Your task to perform on an android device: open app "Pinterest" (install if not already installed) Image 0: 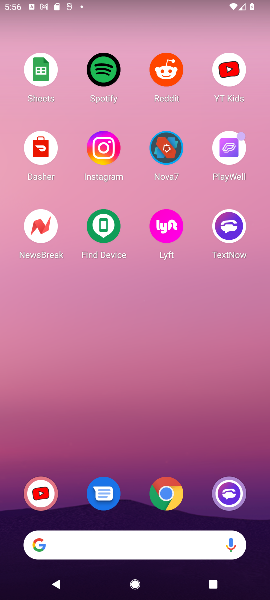
Step 0: drag from (158, 591) to (154, 88)
Your task to perform on an android device: open app "Pinterest" (install if not already installed) Image 1: 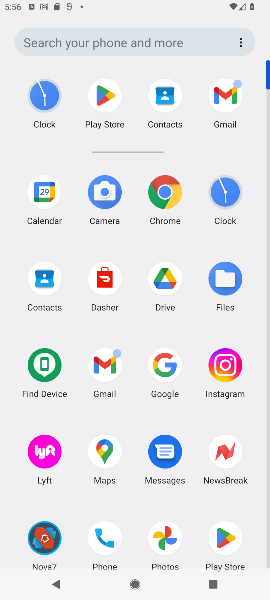
Step 1: drag from (197, 457) to (193, 196)
Your task to perform on an android device: open app "Pinterest" (install if not already installed) Image 2: 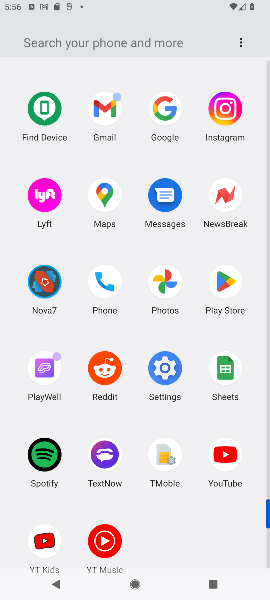
Step 2: click (41, 540)
Your task to perform on an android device: open app "Pinterest" (install if not already installed) Image 3: 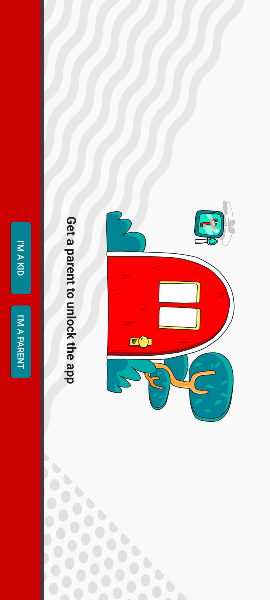
Step 3: press home button
Your task to perform on an android device: open app "Pinterest" (install if not already installed) Image 4: 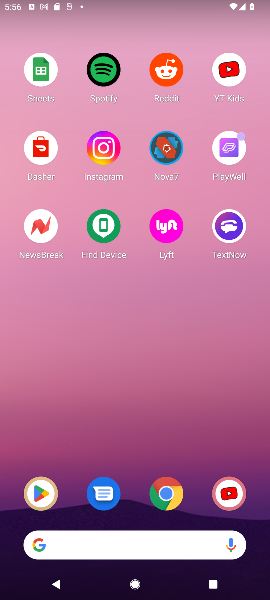
Step 4: click (41, 496)
Your task to perform on an android device: open app "Pinterest" (install if not already installed) Image 5: 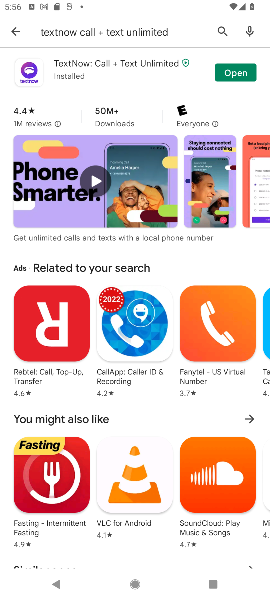
Step 5: click (219, 28)
Your task to perform on an android device: open app "Pinterest" (install if not already installed) Image 6: 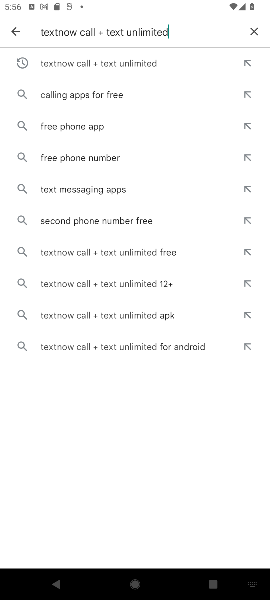
Step 6: click (253, 29)
Your task to perform on an android device: open app "Pinterest" (install if not already installed) Image 7: 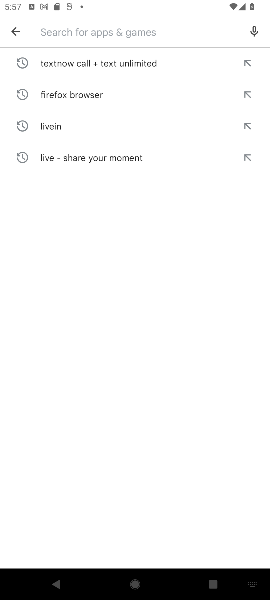
Step 7: type "Pinterest "
Your task to perform on an android device: open app "Pinterest" (install if not already installed) Image 8: 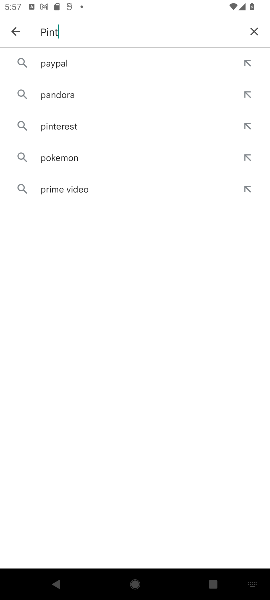
Step 8: type ""
Your task to perform on an android device: open app "Pinterest" (install if not already installed) Image 9: 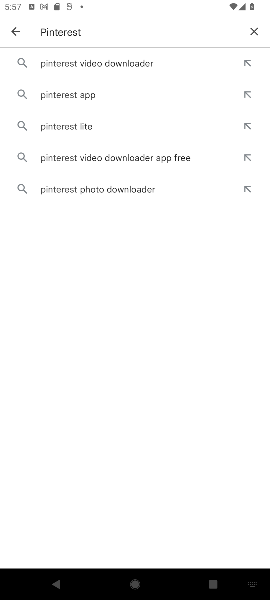
Step 9: click (120, 65)
Your task to perform on an android device: open app "Pinterest" (install if not already installed) Image 10: 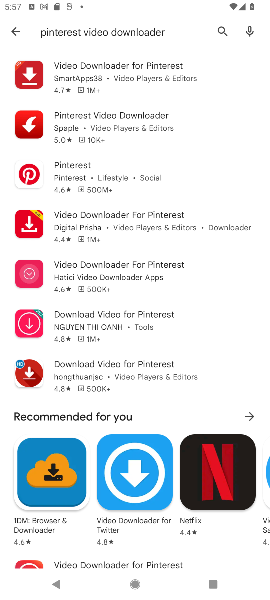
Step 10: click (85, 174)
Your task to perform on an android device: open app "Pinterest" (install if not already installed) Image 11: 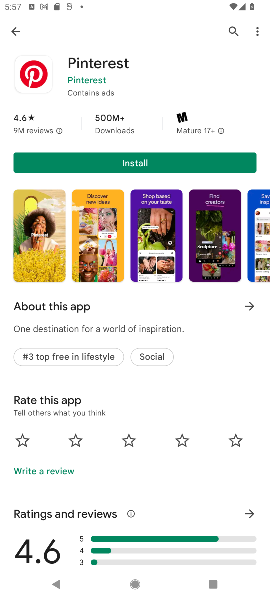
Step 11: click (104, 168)
Your task to perform on an android device: open app "Pinterest" (install if not already installed) Image 12: 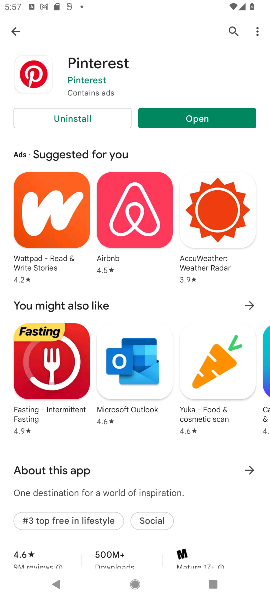
Step 12: task complete